Your task to perform on an android device: Open settings Image 0: 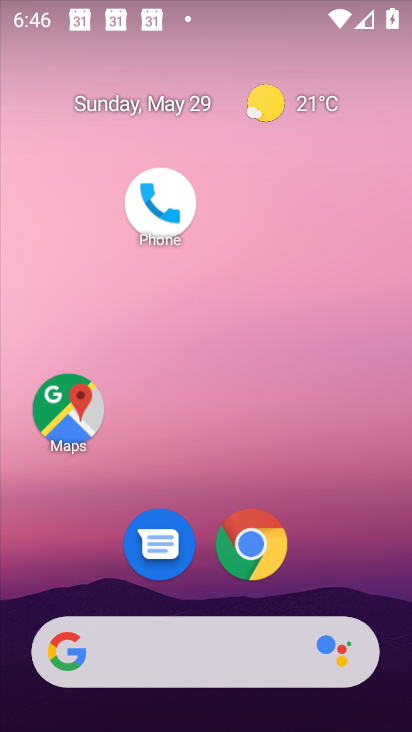
Step 0: drag from (318, 531) to (267, 150)
Your task to perform on an android device: Open settings Image 1: 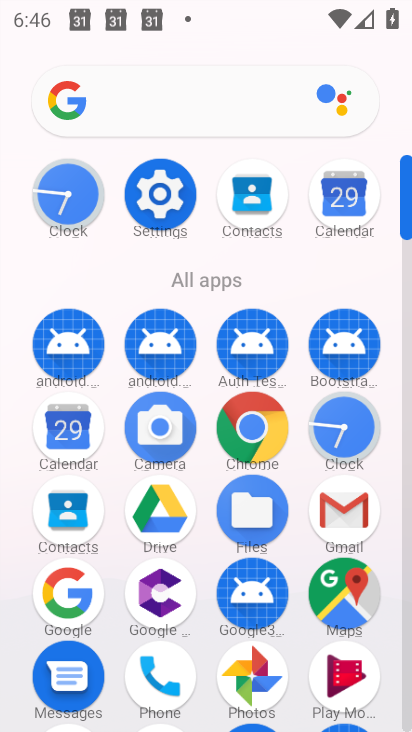
Step 1: click (148, 189)
Your task to perform on an android device: Open settings Image 2: 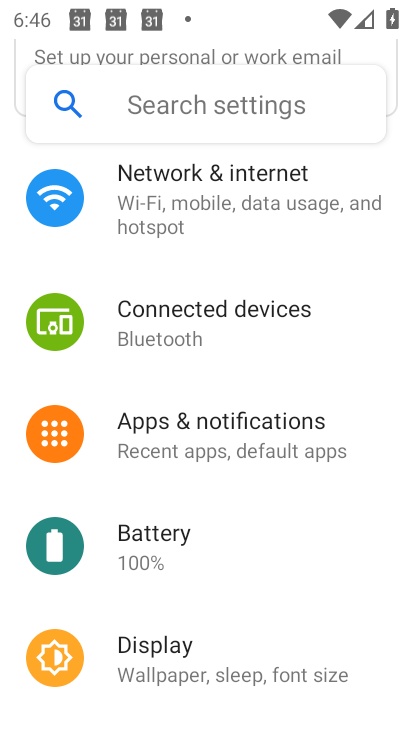
Step 2: task complete